Your task to perform on an android device: Go to settings Image 0: 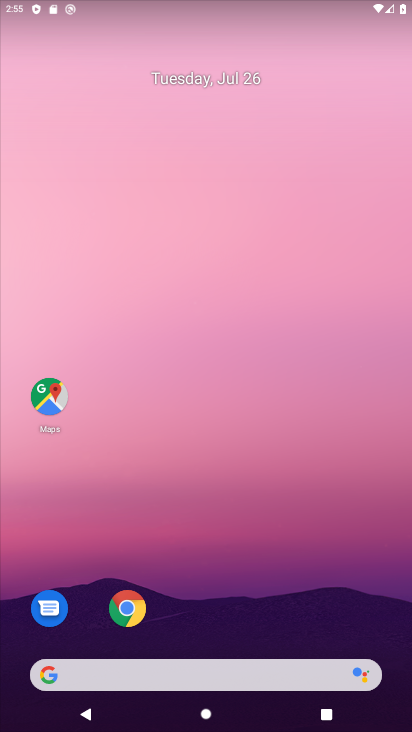
Step 0: drag from (245, 586) to (336, 18)
Your task to perform on an android device: Go to settings Image 1: 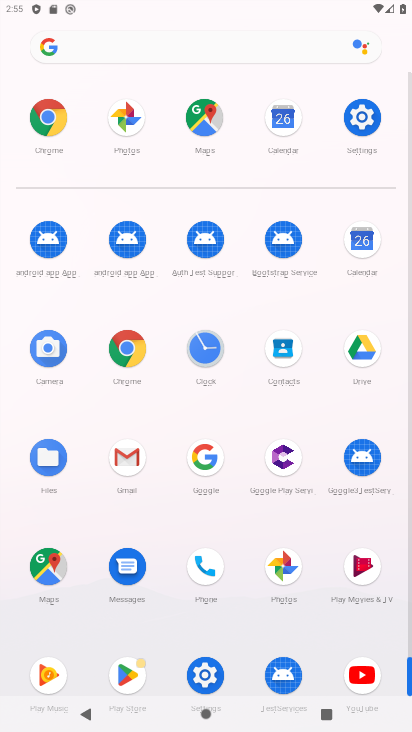
Step 1: click (199, 673)
Your task to perform on an android device: Go to settings Image 2: 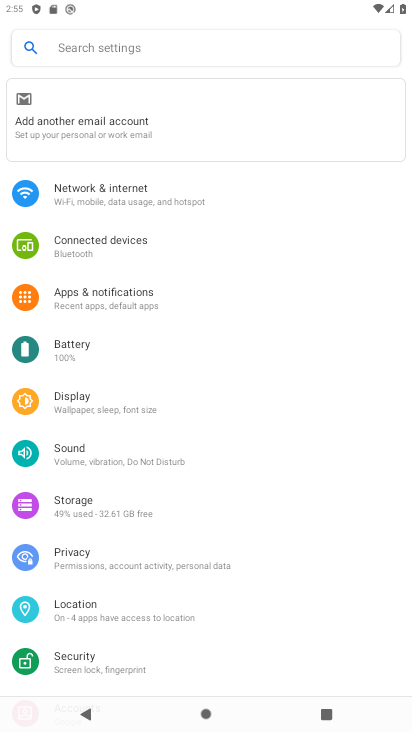
Step 2: task complete